Your task to perform on an android device: Open accessibility settings Image 0: 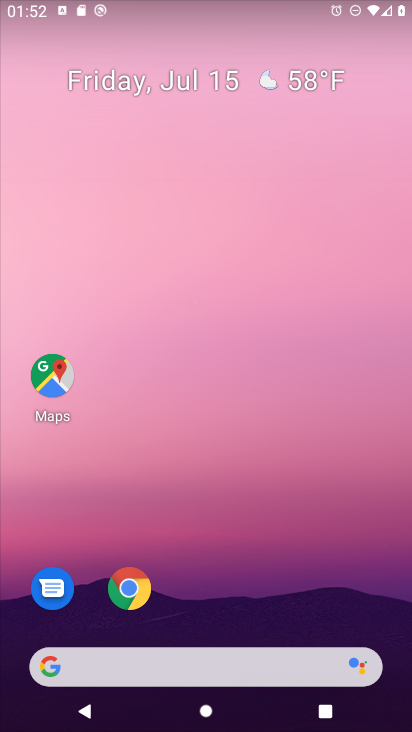
Step 0: drag from (399, 641) to (338, 107)
Your task to perform on an android device: Open accessibility settings Image 1: 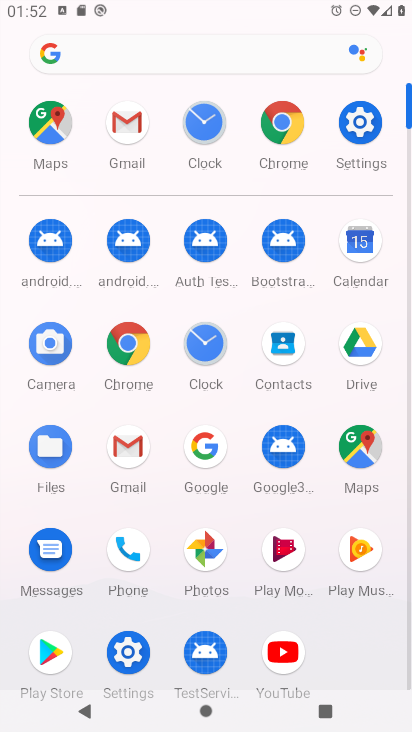
Step 1: click (129, 653)
Your task to perform on an android device: Open accessibility settings Image 2: 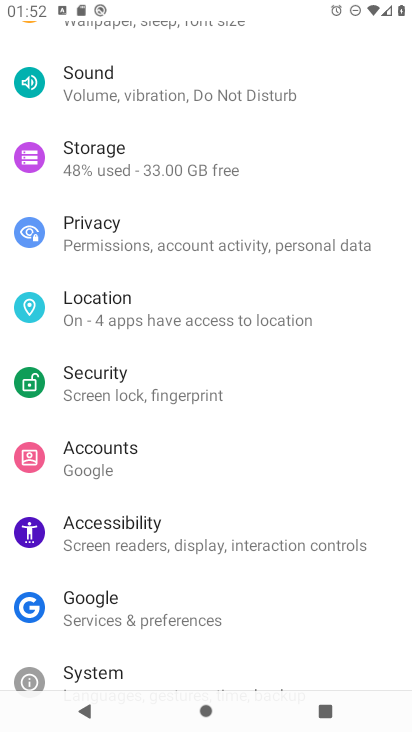
Step 2: click (112, 534)
Your task to perform on an android device: Open accessibility settings Image 3: 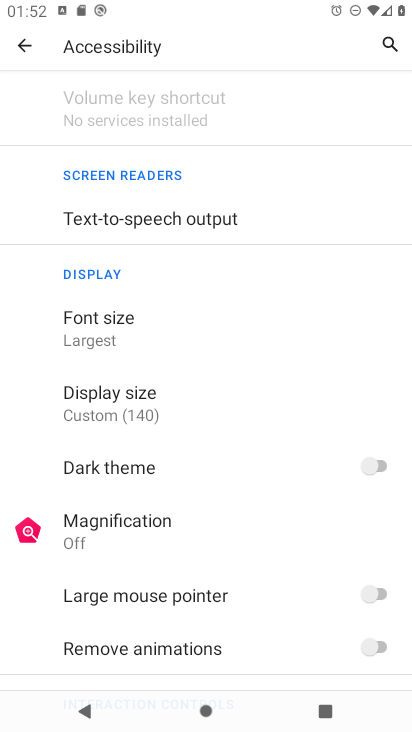
Step 3: task complete